Your task to perform on an android device: What is the news today? Image 0: 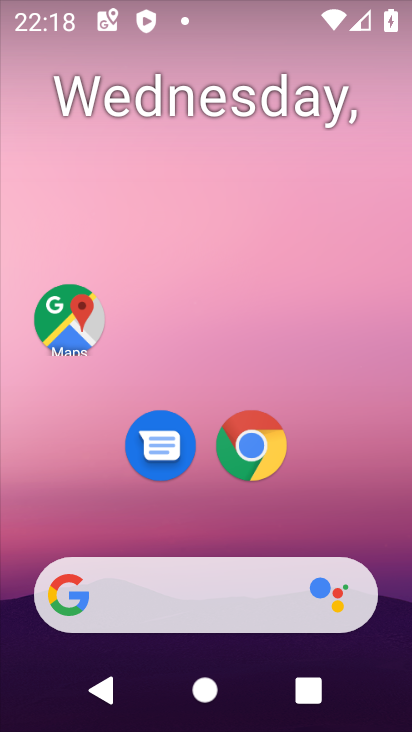
Step 0: click (260, 414)
Your task to perform on an android device: What is the news today? Image 1: 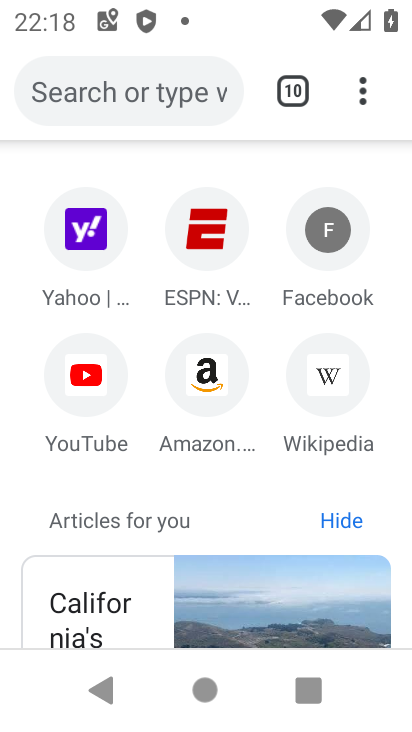
Step 1: click (145, 73)
Your task to perform on an android device: What is the news today? Image 2: 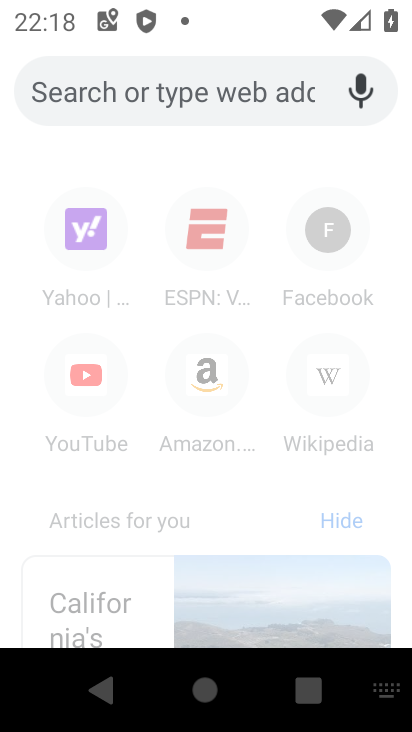
Step 2: click (119, 87)
Your task to perform on an android device: What is the news today? Image 3: 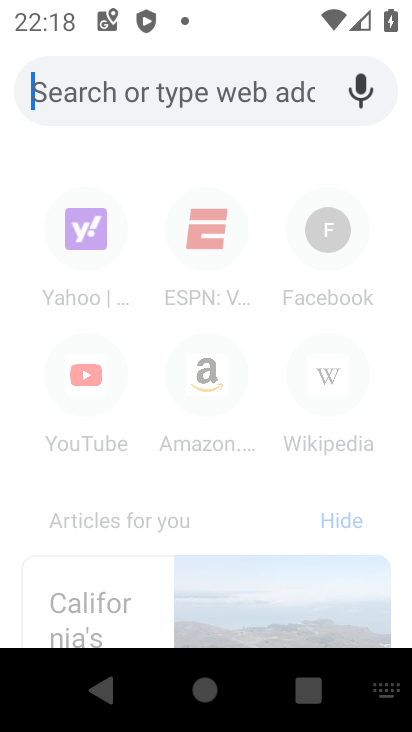
Step 3: click (153, 95)
Your task to perform on an android device: What is the news today? Image 4: 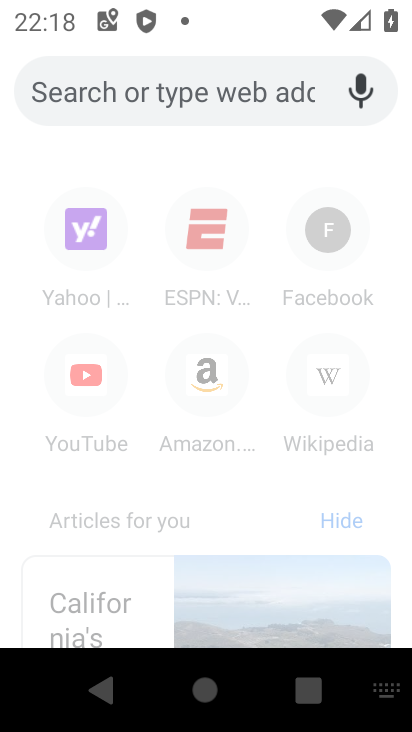
Step 4: click (225, 81)
Your task to perform on an android device: What is the news today? Image 5: 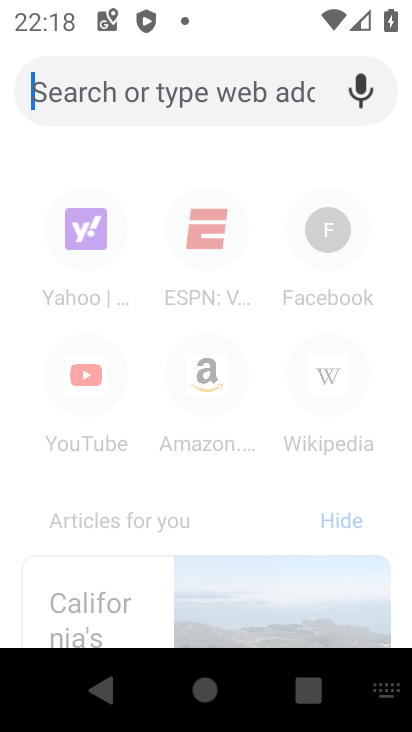
Step 5: type "What is the news today?"
Your task to perform on an android device: What is the news today? Image 6: 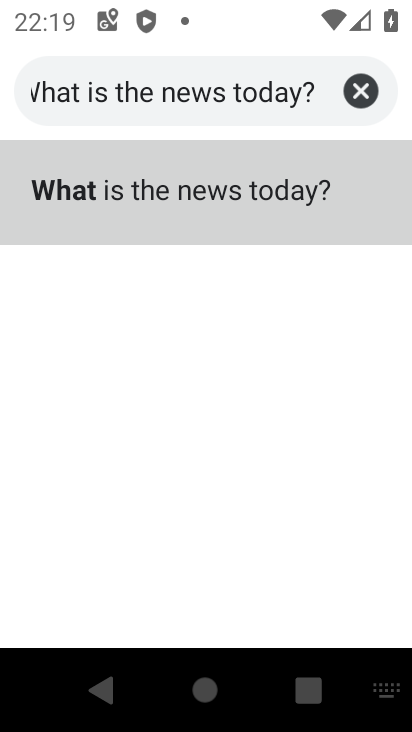
Step 6: click (224, 204)
Your task to perform on an android device: What is the news today? Image 7: 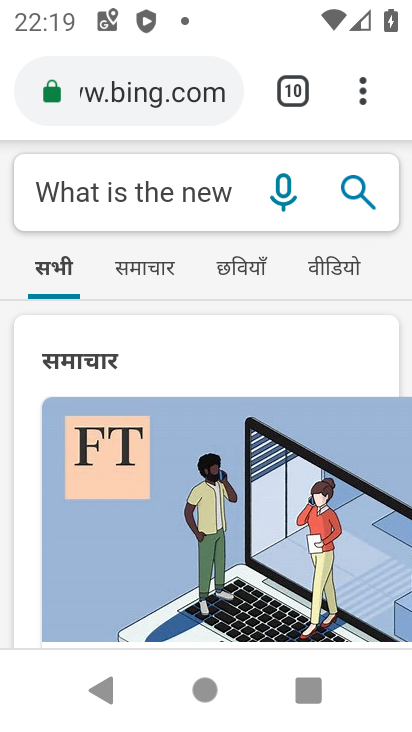
Step 7: task complete